Your task to perform on an android device: turn off data saver in the chrome app Image 0: 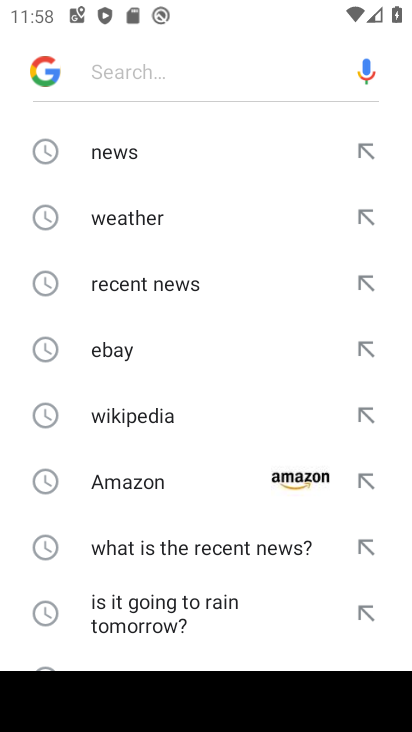
Step 0: press home button
Your task to perform on an android device: turn off data saver in the chrome app Image 1: 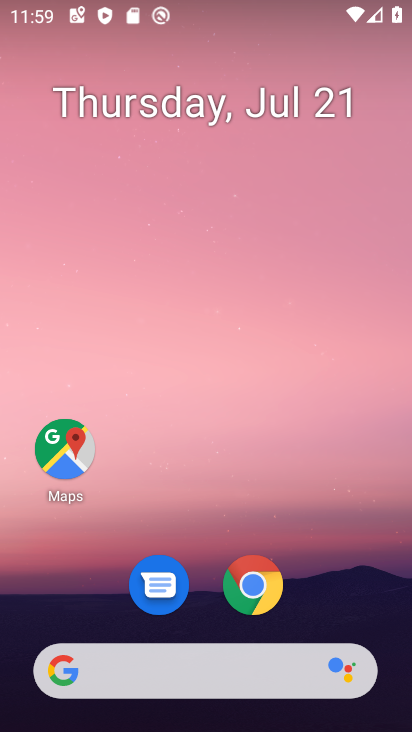
Step 1: click (253, 586)
Your task to perform on an android device: turn off data saver in the chrome app Image 2: 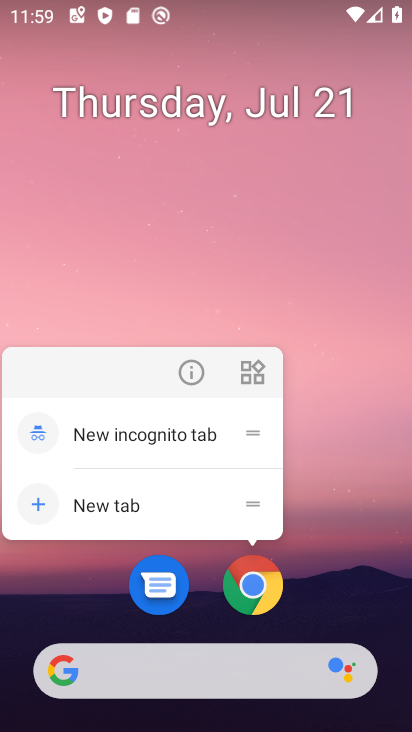
Step 2: click (253, 584)
Your task to perform on an android device: turn off data saver in the chrome app Image 3: 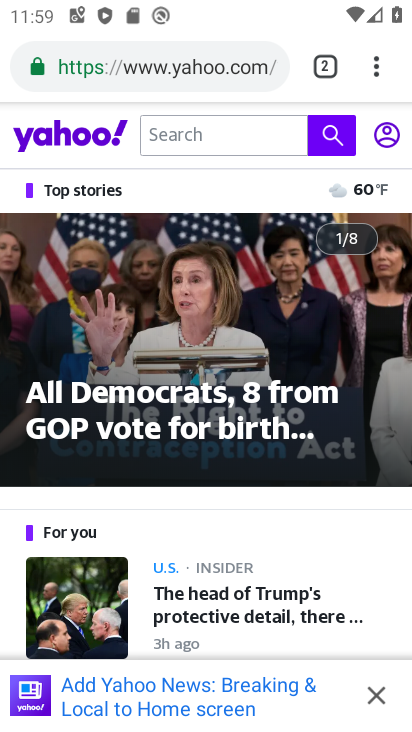
Step 3: drag from (374, 68) to (206, 586)
Your task to perform on an android device: turn off data saver in the chrome app Image 4: 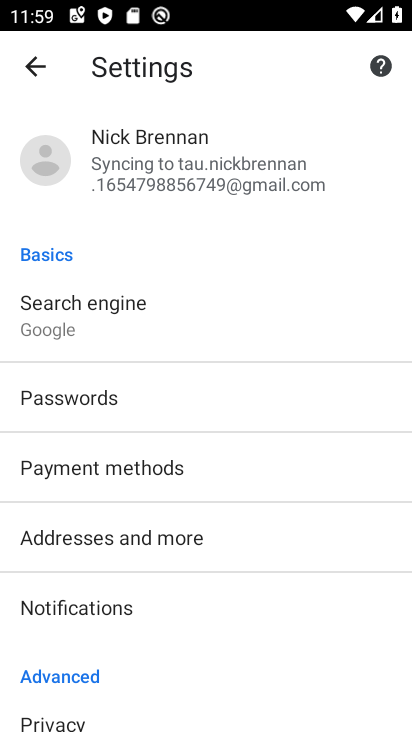
Step 4: drag from (204, 588) to (309, 310)
Your task to perform on an android device: turn off data saver in the chrome app Image 5: 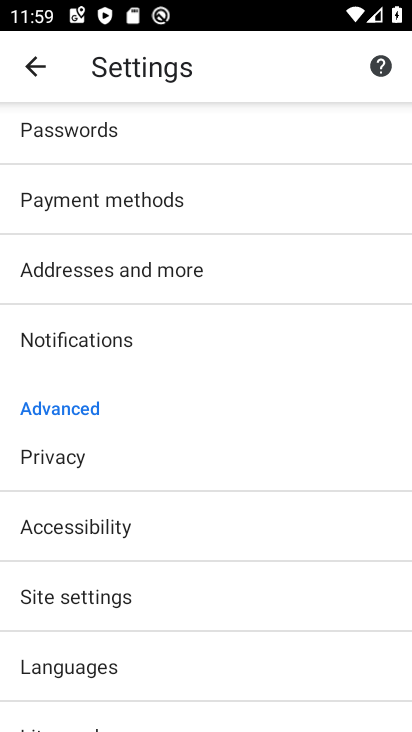
Step 5: drag from (189, 583) to (235, 375)
Your task to perform on an android device: turn off data saver in the chrome app Image 6: 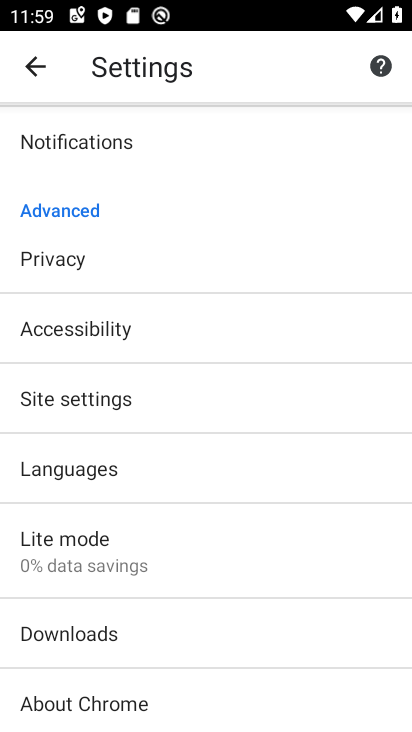
Step 6: click (116, 564)
Your task to perform on an android device: turn off data saver in the chrome app Image 7: 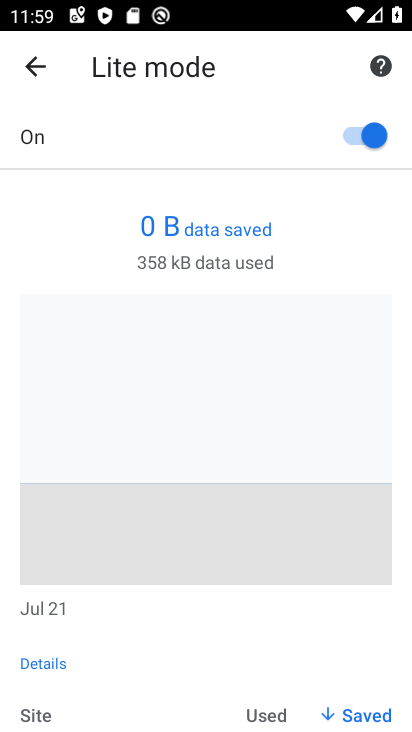
Step 7: click (350, 136)
Your task to perform on an android device: turn off data saver in the chrome app Image 8: 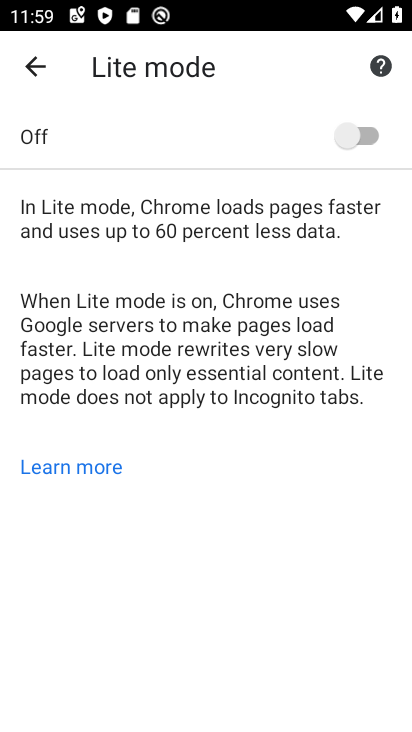
Step 8: task complete